Your task to perform on an android device: Clear all items from cart on newegg. Image 0: 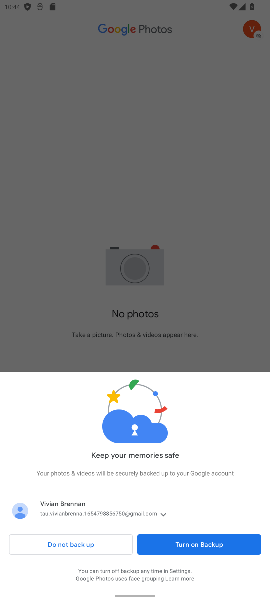
Step 0: press home button
Your task to perform on an android device: Clear all items from cart on newegg. Image 1: 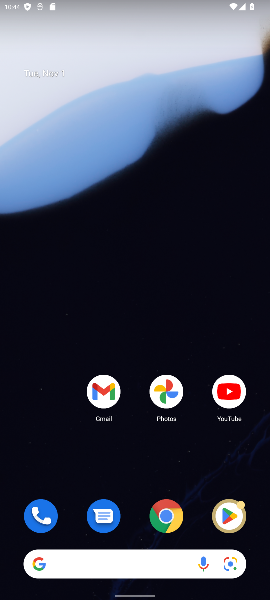
Step 1: click (146, 566)
Your task to perform on an android device: Clear all items from cart on newegg. Image 2: 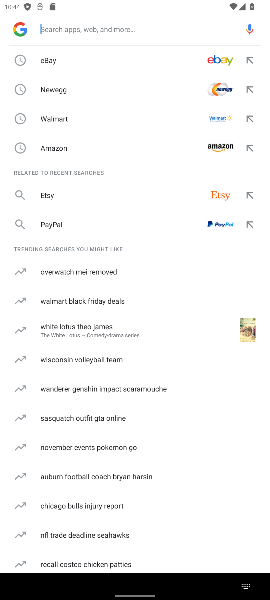
Step 2: type "newegg"
Your task to perform on an android device: Clear all items from cart on newegg. Image 3: 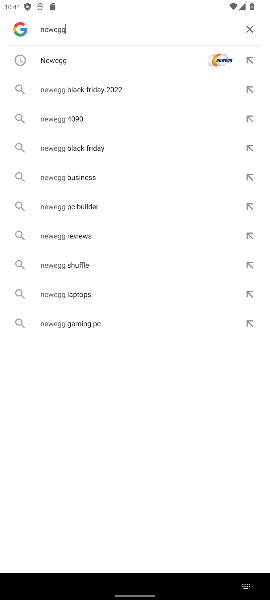
Step 3: click (194, 61)
Your task to perform on an android device: Clear all items from cart on newegg. Image 4: 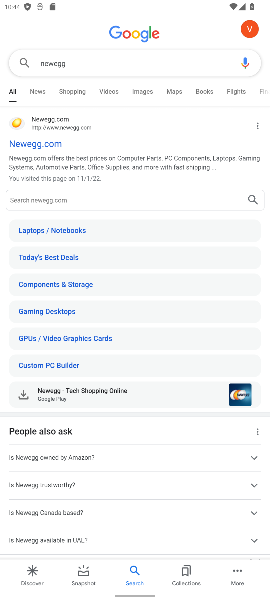
Step 4: click (51, 145)
Your task to perform on an android device: Clear all items from cart on newegg. Image 5: 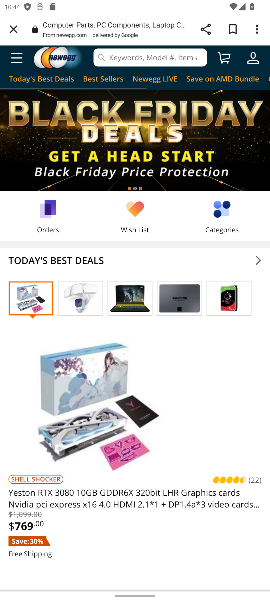
Step 5: click (222, 56)
Your task to perform on an android device: Clear all items from cart on newegg. Image 6: 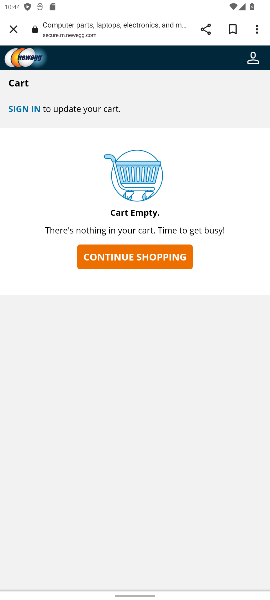
Step 6: task complete